Your task to perform on an android device: change the upload size in google photos Image 0: 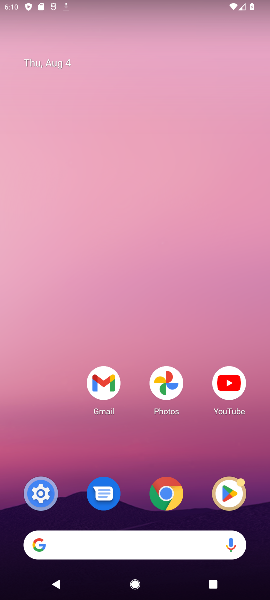
Step 0: click (163, 379)
Your task to perform on an android device: change the upload size in google photos Image 1: 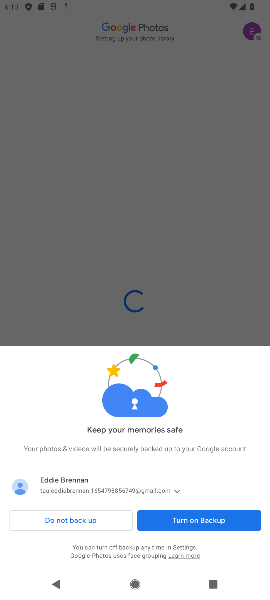
Step 1: click (178, 523)
Your task to perform on an android device: change the upload size in google photos Image 2: 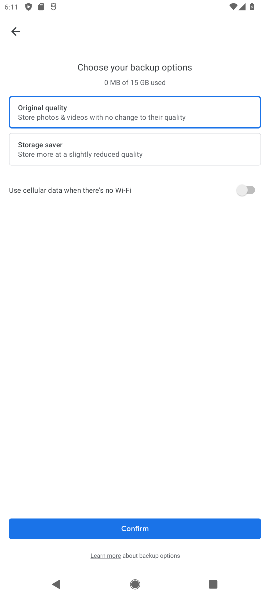
Step 2: click (133, 524)
Your task to perform on an android device: change the upload size in google photos Image 3: 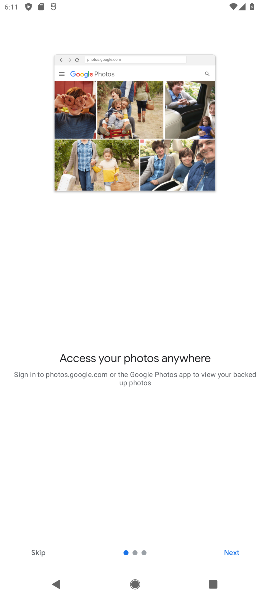
Step 3: click (33, 554)
Your task to perform on an android device: change the upload size in google photos Image 4: 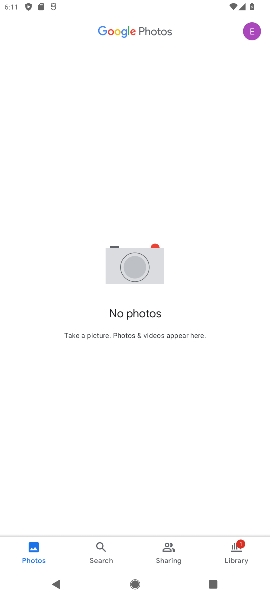
Step 4: click (251, 33)
Your task to perform on an android device: change the upload size in google photos Image 5: 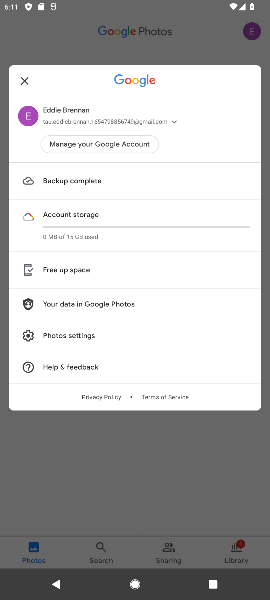
Step 5: click (83, 176)
Your task to perform on an android device: change the upload size in google photos Image 6: 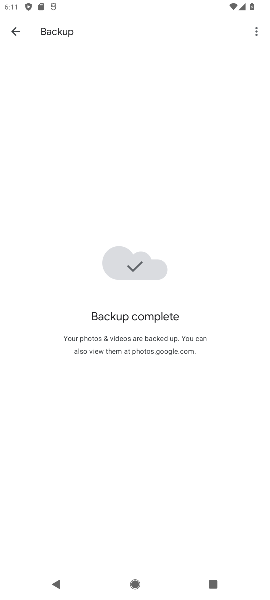
Step 6: click (258, 29)
Your task to perform on an android device: change the upload size in google photos Image 7: 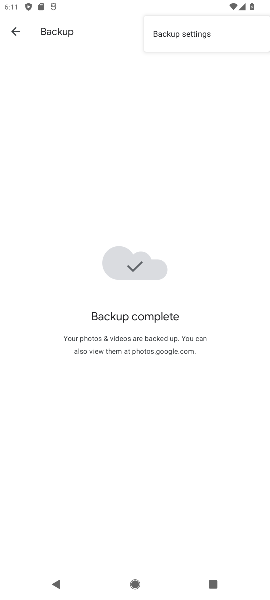
Step 7: click (253, 28)
Your task to perform on an android device: change the upload size in google photos Image 8: 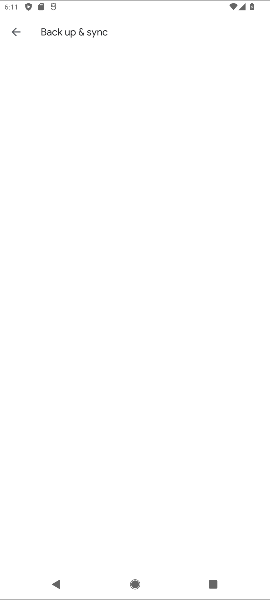
Step 8: click (210, 42)
Your task to perform on an android device: change the upload size in google photos Image 9: 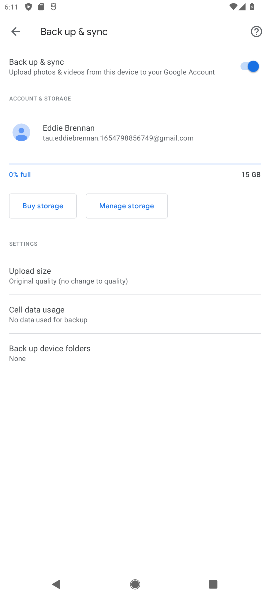
Step 9: click (56, 274)
Your task to perform on an android device: change the upload size in google photos Image 10: 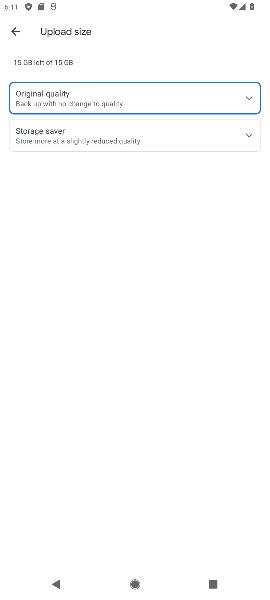
Step 10: click (57, 140)
Your task to perform on an android device: change the upload size in google photos Image 11: 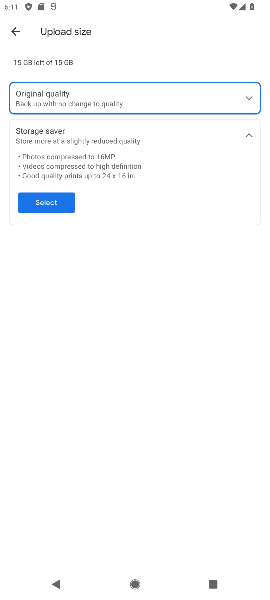
Step 11: click (51, 200)
Your task to perform on an android device: change the upload size in google photos Image 12: 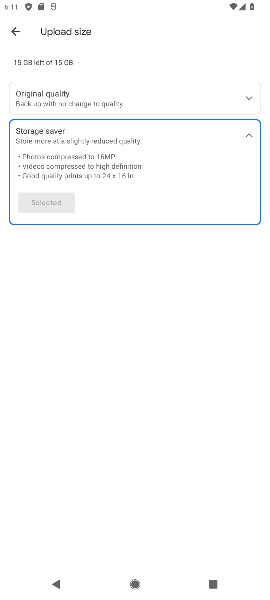
Step 12: task complete